Your task to perform on an android device: Search for the best lawnmowers on Lowes.com Image 0: 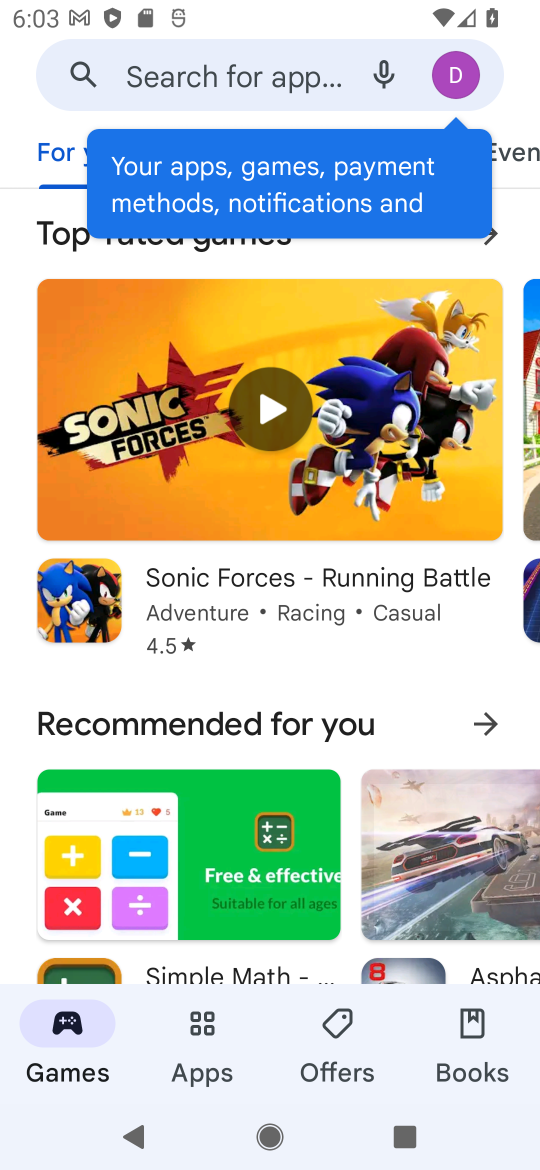
Step 0: press home button
Your task to perform on an android device: Search for the best lawnmowers on Lowes.com Image 1: 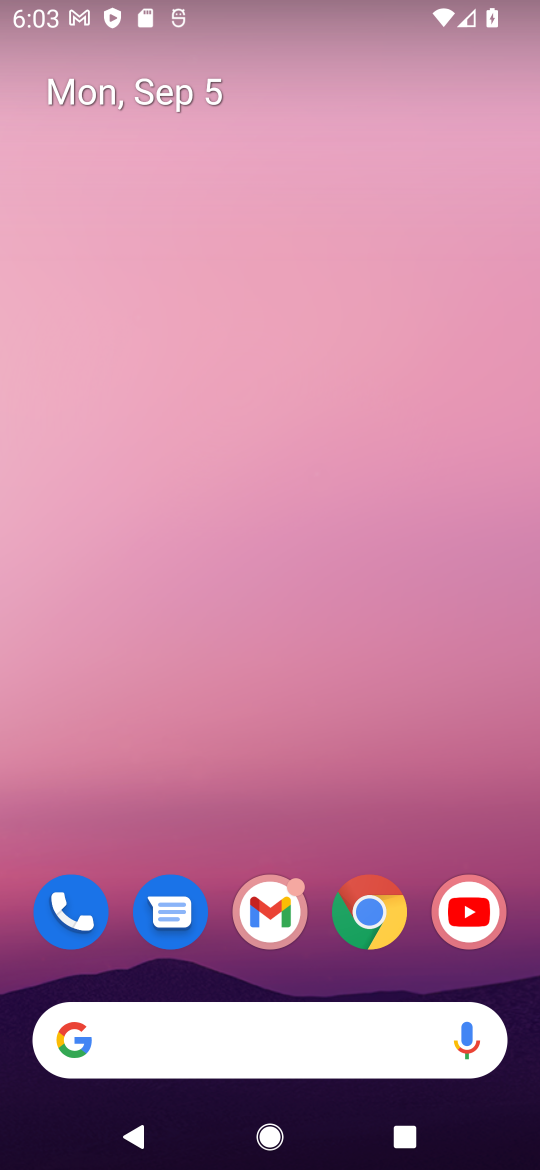
Step 1: click (398, 929)
Your task to perform on an android device: Search for the best lawnmowers on Lowes.com Image 2: 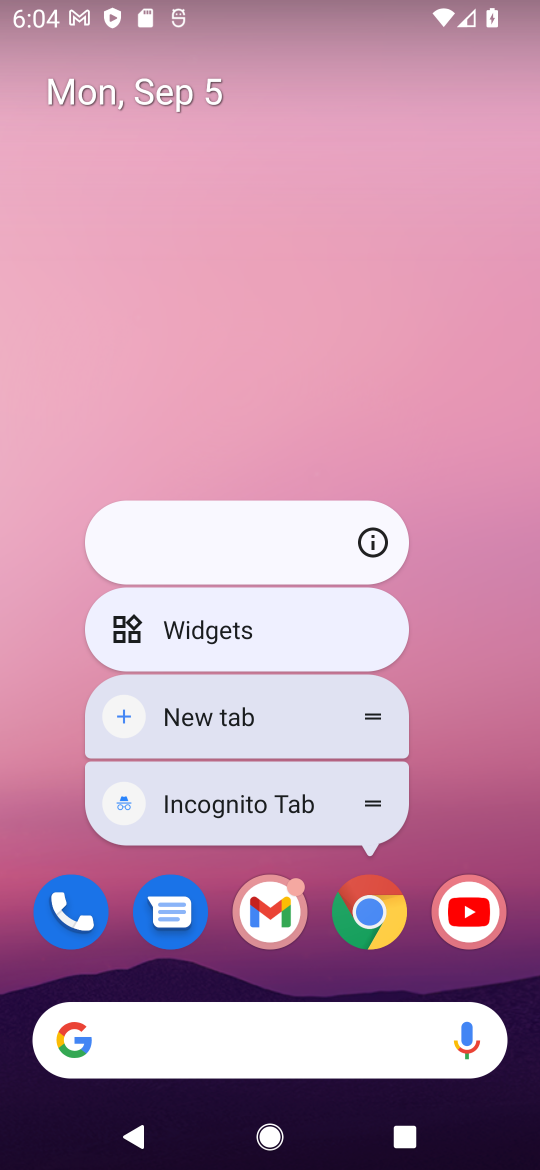
Step 2: click (370, 929)
Your task to perform on an android device: Search for the best lawnmowers on Lowes.com Image 3: 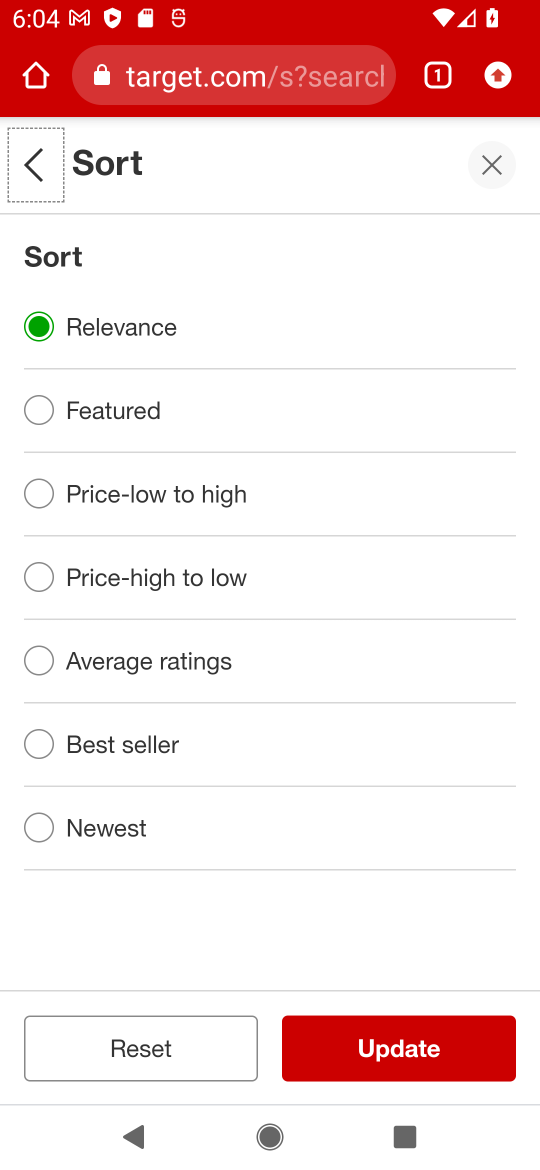
Step 3: click (288, 73)
Your task to perform on an android device: Search for the best lawnmowers on Lowes.com Image 4: 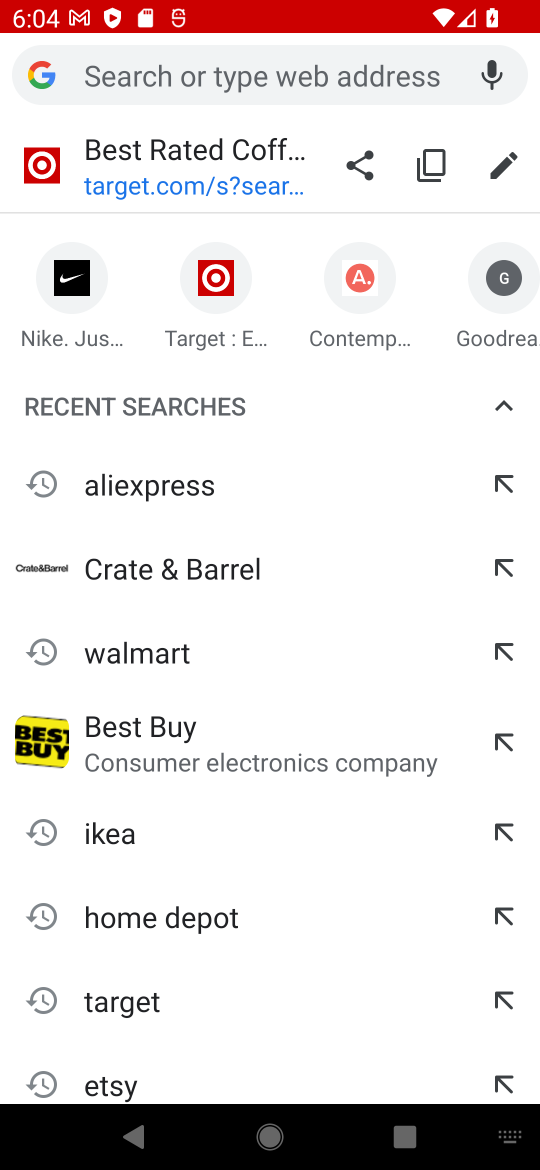
Step 4: type "lowes.com"
Your task to perform on an android device: Search for the best lawnmowers on Lowes.com Image 5: 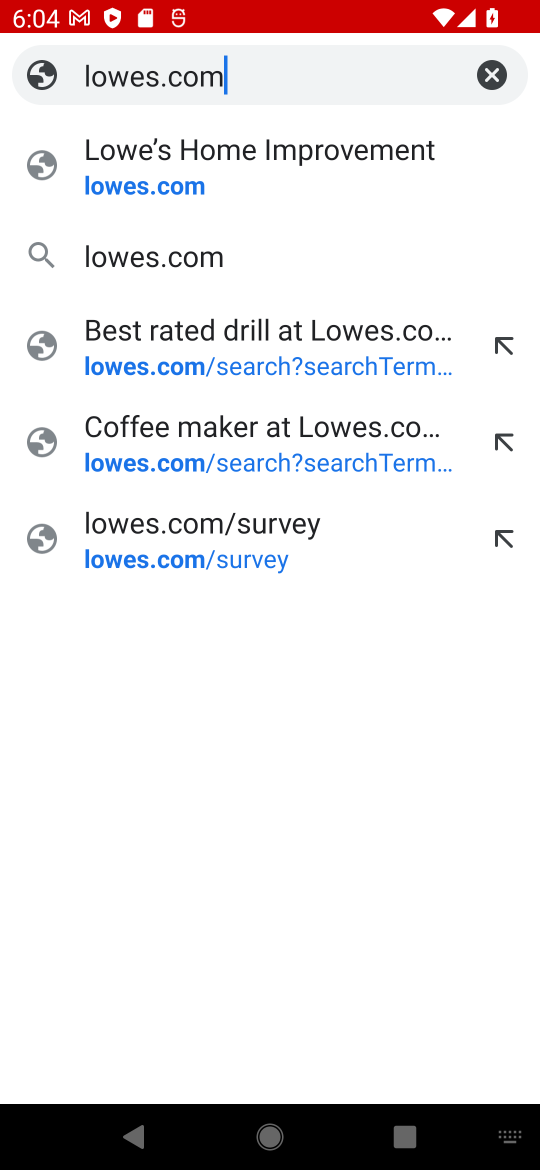
Step 5: press enter
Your task to perform on an android device: Search for the best lawnmowers on Lowes.com Image 6: 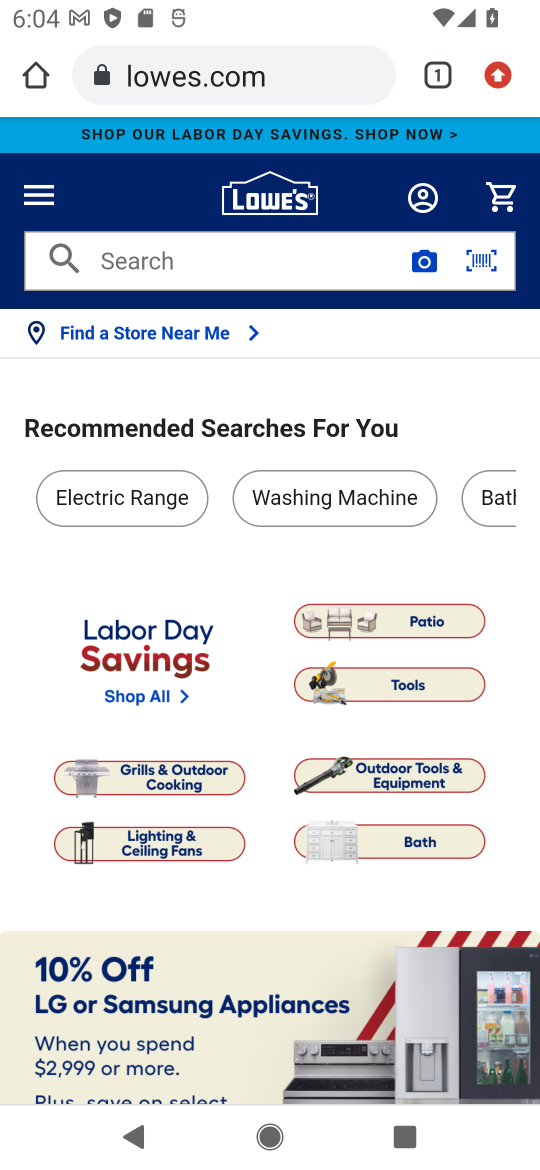
Step 6: click (279, 275)
Your task to perform on an android device: Search for the best lawnmowers on Lowes.com Image 7: 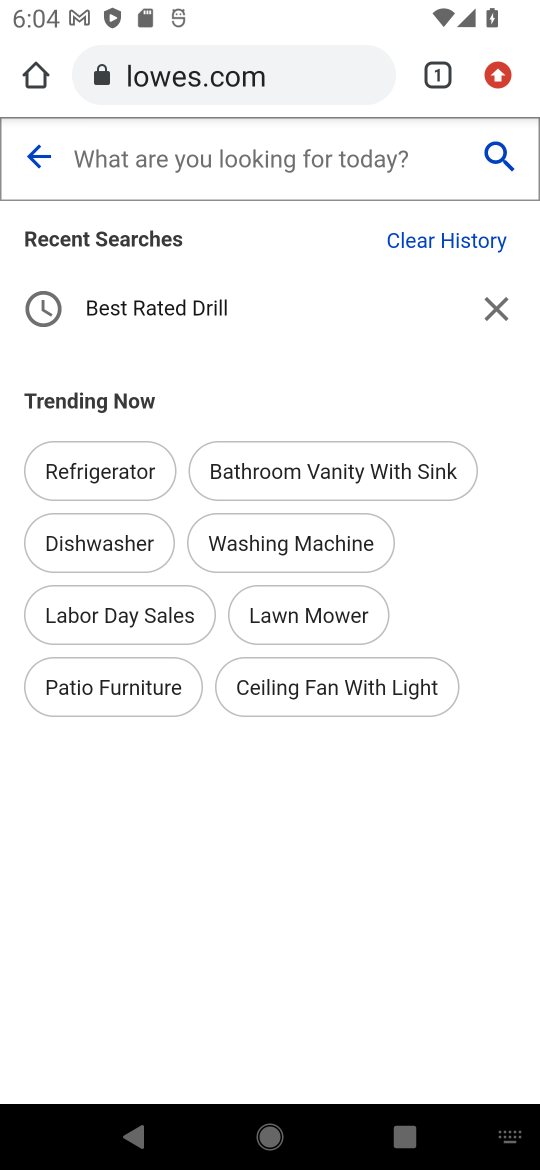
Step 7: type "best lawnmovers"
Your task to perform on an android device: Search for the best lawnmowers on Lowes.com Image 8: 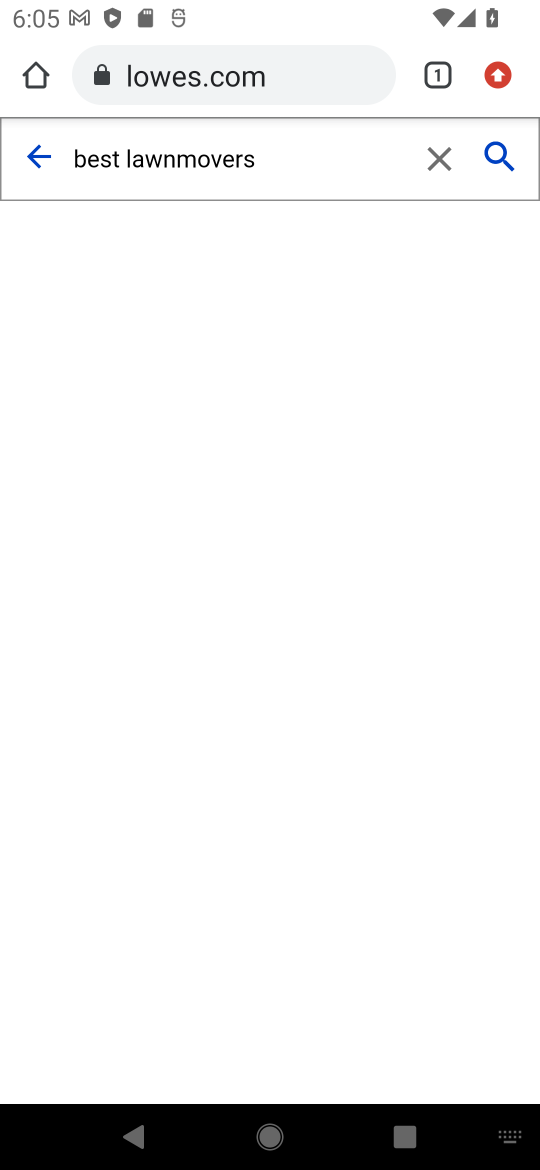
Step 8: press enter
Your task to perform on an android device: Search for the best lawnmowers on Lowes.com Image 9: 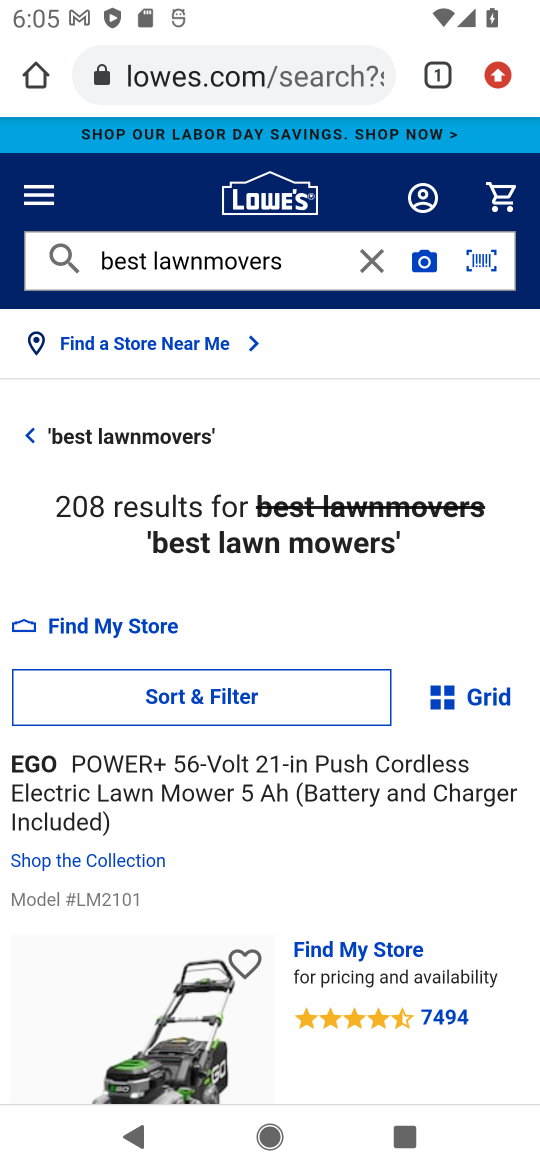
Step 9: click (153, 694)
Your task to perform on an android device: Search for the best lawnmowers on Lowes.com Image 10: 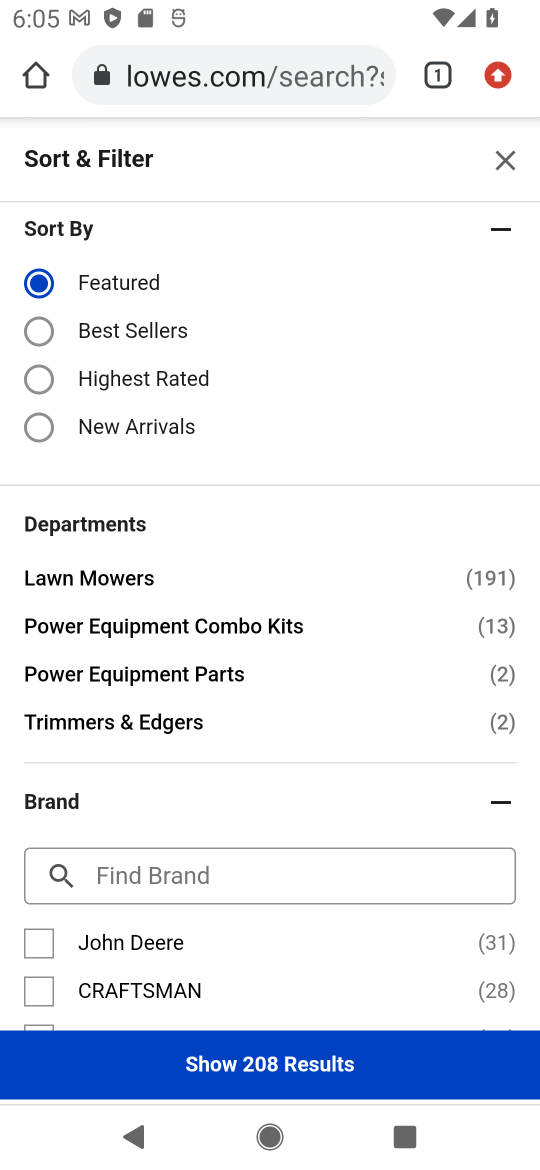
Step 10: click (117, 325)
Your task to perform on an android device: Search for the best lawnmowers on Lowes.com Image 11: 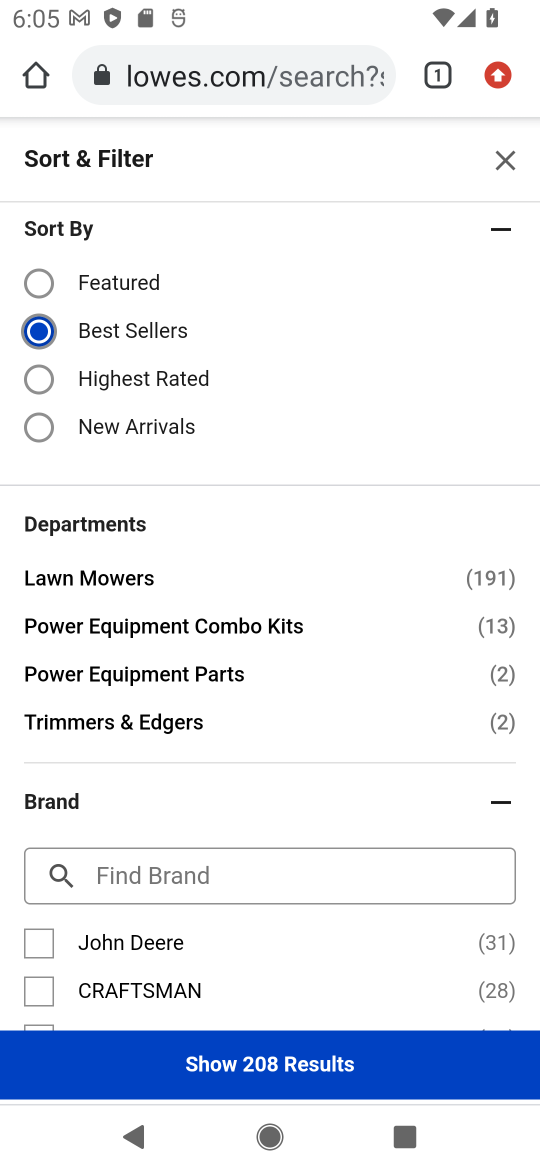
Step 11: click (333, 1068)
Your task to perform on an android device: Search for the best lawnmowers on Lowes.com Image 12: 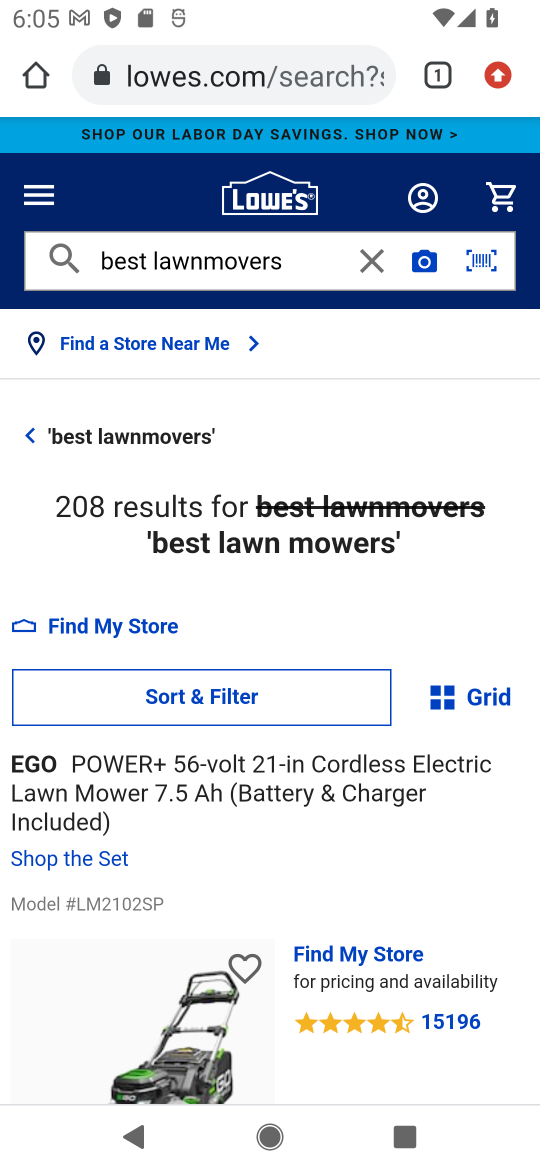
Step 12: click (284, 806)
Your task to perform on an android device: Search for the best lawnmowers on Lowes.com Image 13: 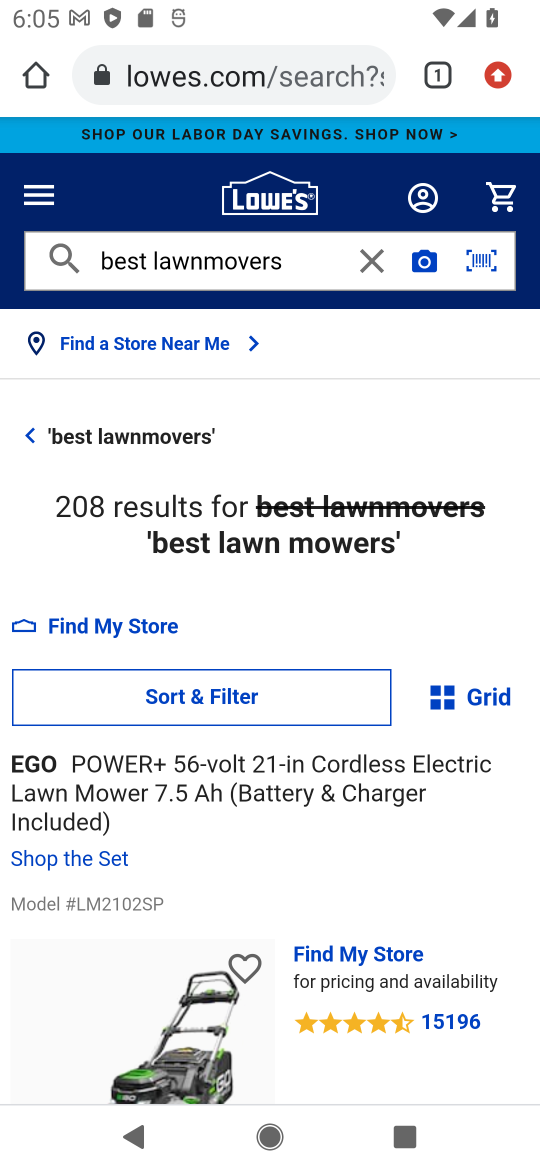
Step 13: task complete